Your task to perform on an android device: check data usage Image 0: 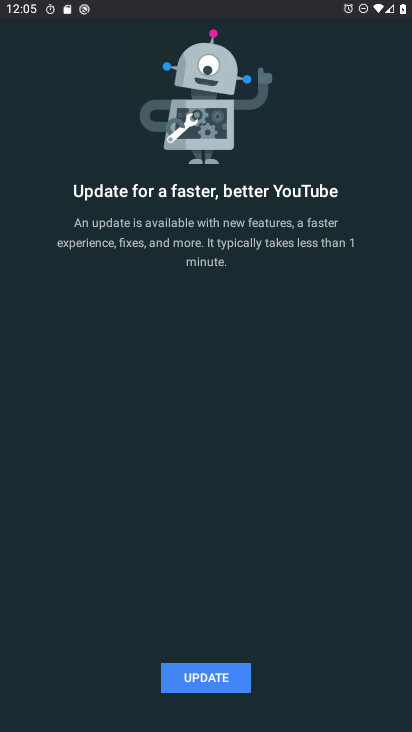
Step 0: press home button
Your task to perform on an android device: check data usage Image 1: 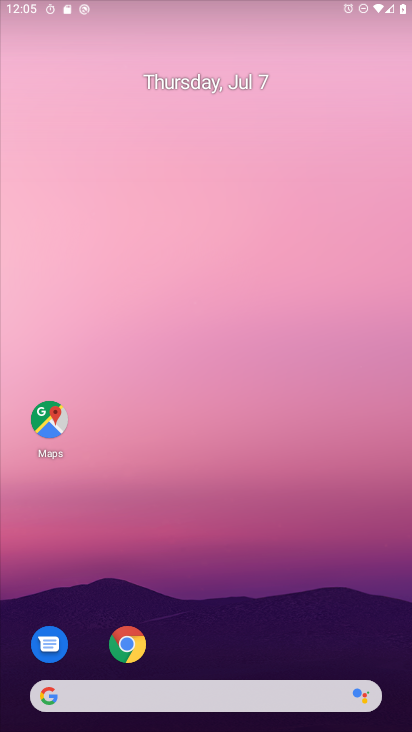
Step 1: drag from (211, 655) to (208, 160)
Your task to perform on an android device: check data usage Image 2: 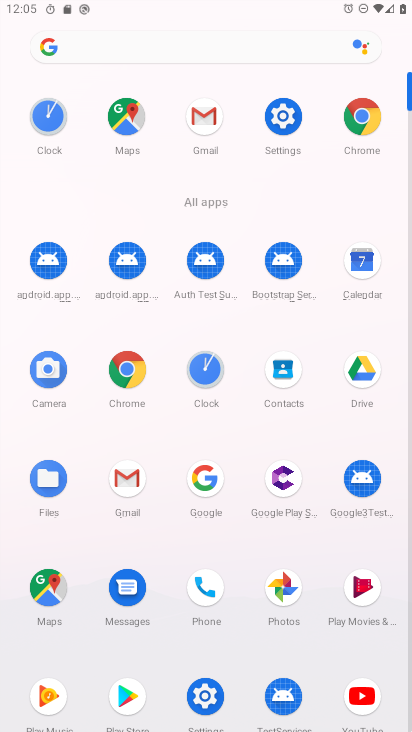
Step 2: click (290, 120)
Your task to perform on an android device: check data usage Image 3: 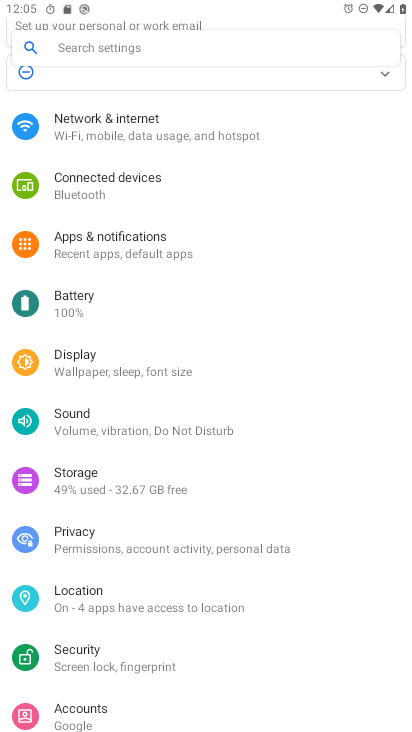
Step 3: click (156, 130)
Your task to perform on an android device: check data usage Image 4: 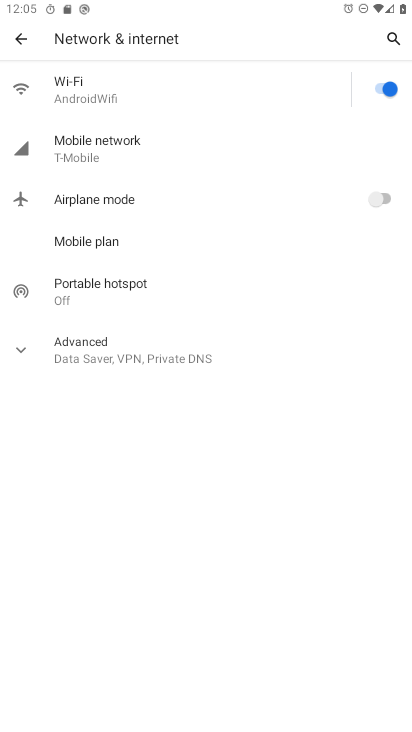
Step 4: click (144, 146)
Your task to perform on an android device: check data usage Image 5: 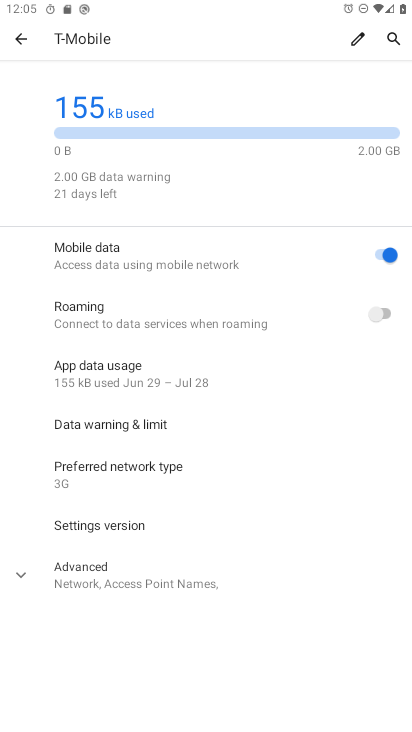
Step 5: task complete